Your task to perform on an android device: What's the weather going to be this weekend? Image 0: 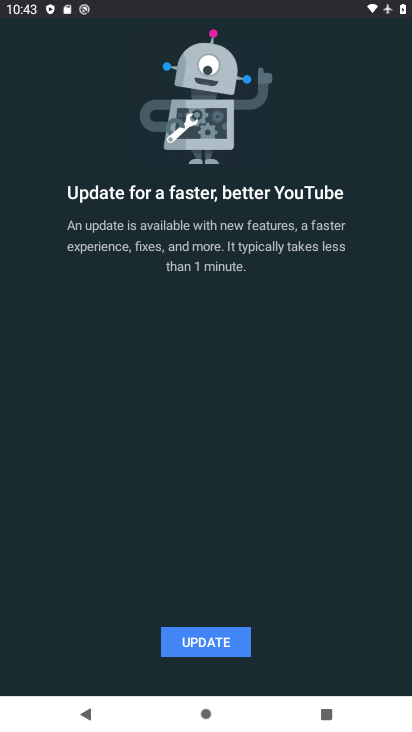
Step 0: press home button
Your task to perform on an android device: What's the weather going to be this weekend? Image 1: 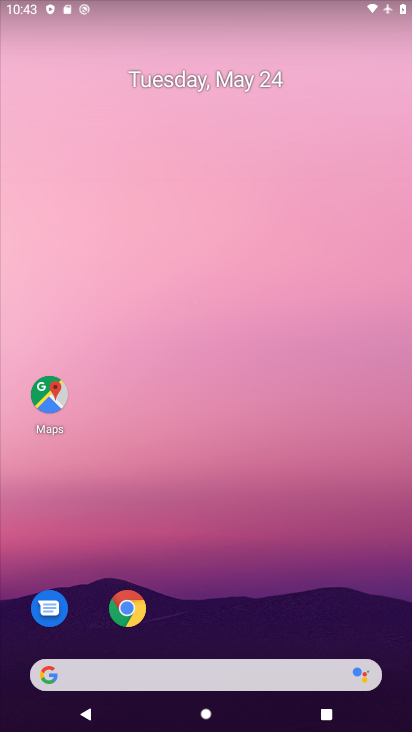
Step 1: drag from (5, 174) to (338, 217)
Your task to perform on an android device: What's the weather going to be this weekend? Image 2: 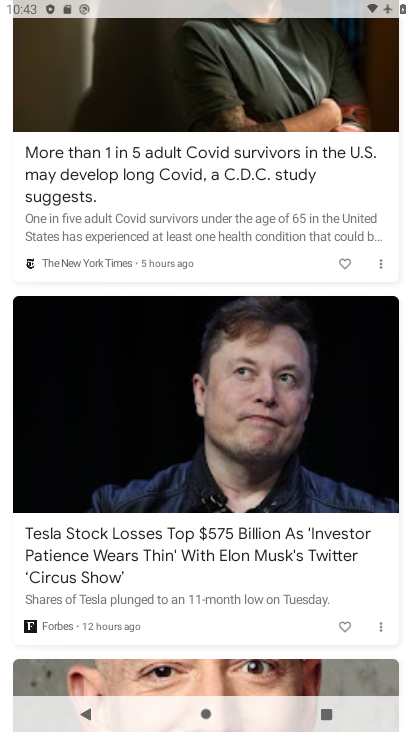
Step 2: drag from (308, 112) to (284, 559)
Your task to perform on an android device: What's the weather going to be this weekend? Image 3: 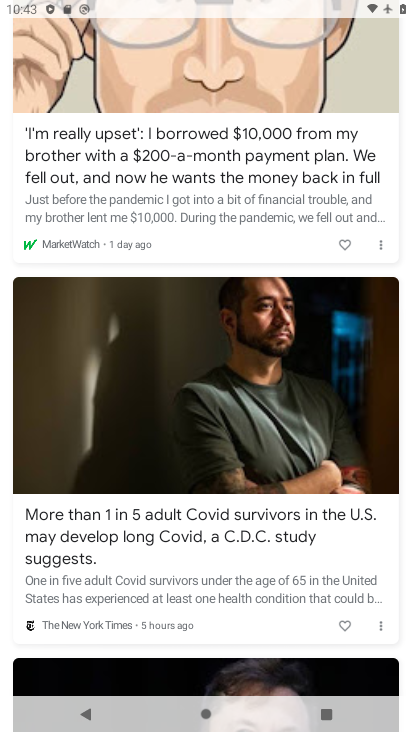
Step 3: drag from (277, 190) to (278, 628)
Your task to perform on an android device: What's the weather going to be this weekend? Image 4: 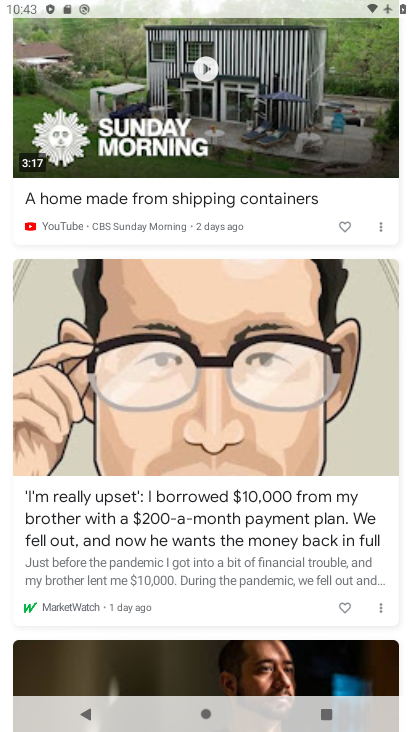
Step 4: drag from (294, 183) to (286, 613)
Your task to perform on an android device: What's the weather going to be this weekend? Image 5: 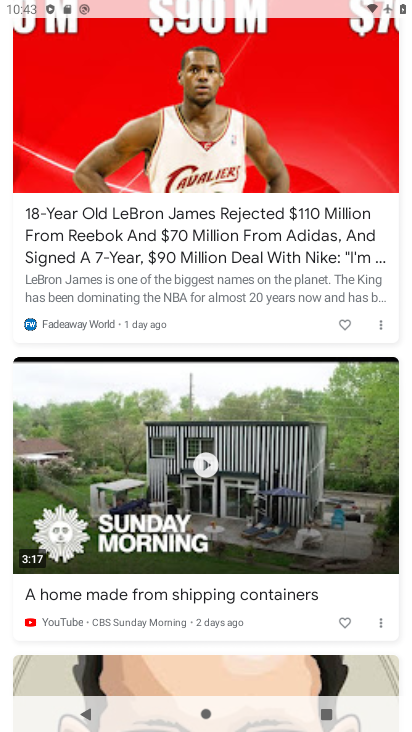
Step 5: drag from (275, 134) to (281, 619)
Your task to perform on an android device: What's the weather going to be this weekend? Image 6: 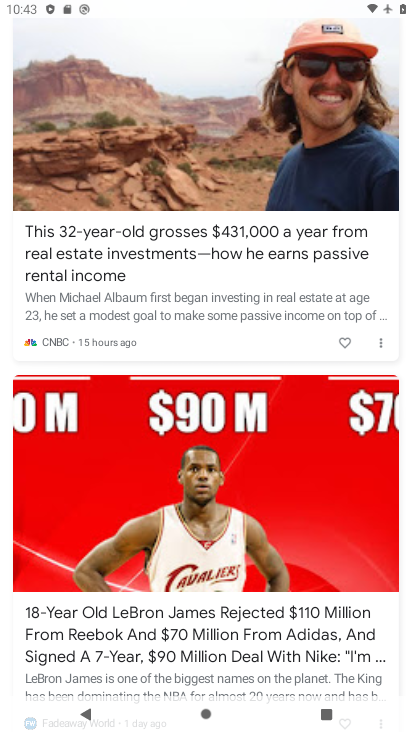
Step 6: drag from (290, 201) to (292, 604)
Your task to perform on an android device: What's the weather going to be this weekend? Image 7: 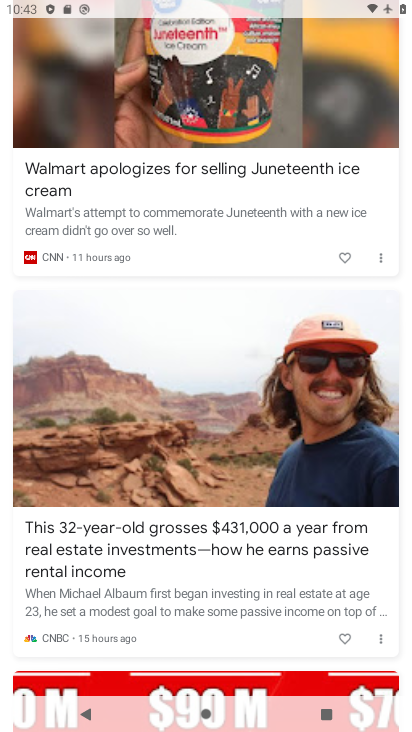
Step 7: drag from (303, 120) to (315, 586)
Your task to perform on an android device: What's the weather going to be this weekend? Image 8: 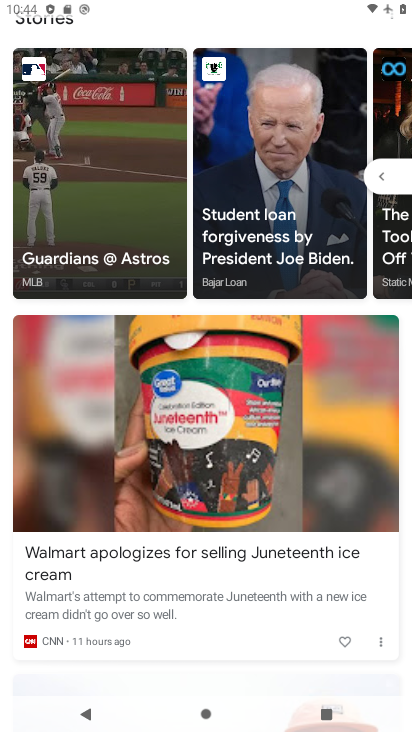
Step 8: drag from (286, 102) to (295, 576)
Your task to perform on an android device: What's the weather going to be this weekend? Image 9: 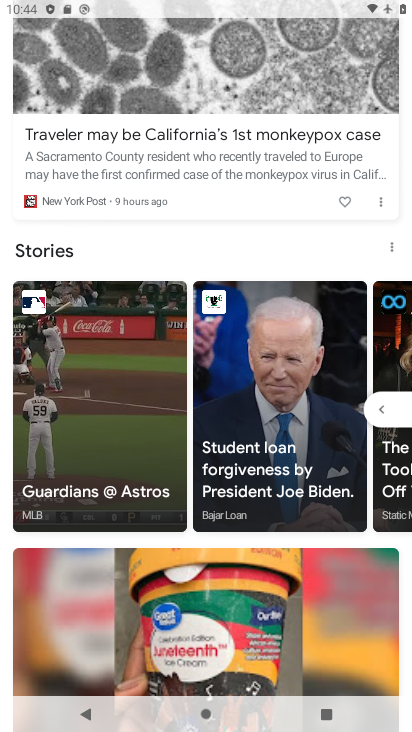
Step 9: drag from (276, 53) to (270, 468)
Your task to perform on an android device: What's the weather going to be this weekend? Image 10: 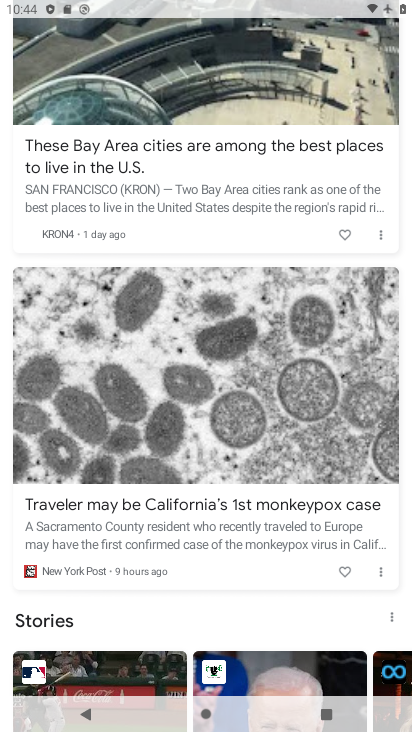
Step 10: drag from (263, 28) to (233, 572)
Your task to perform on an android device: What's the weather going to be this weekend? Image 11: 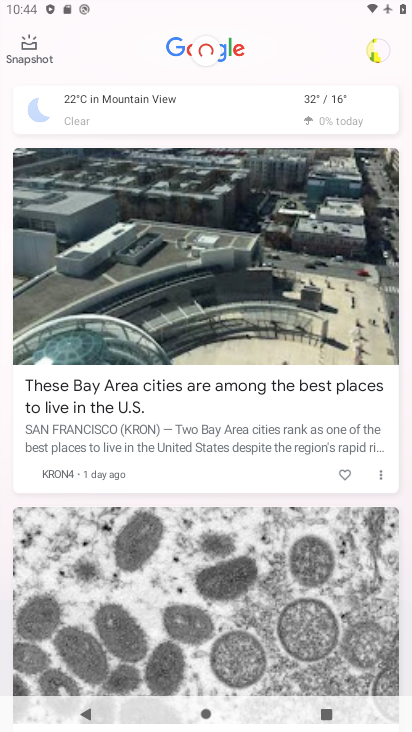
Step 11: click (325, 92)
Your task to perform on an android device: What's the weather going to be this weekend? Image 12: 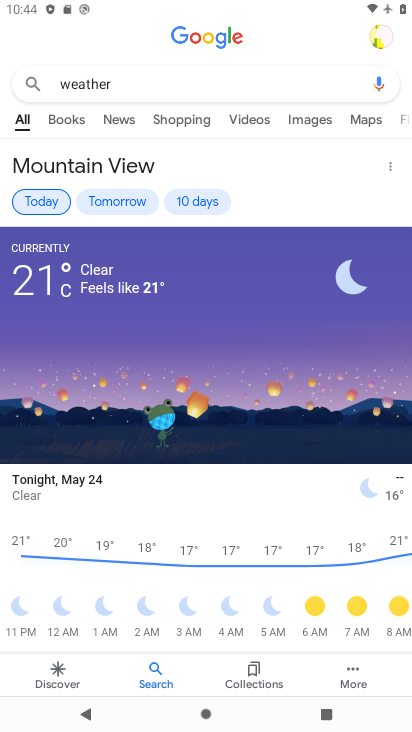
Step 12: click (200, 200)
Your task to perform on an android device: What's the weather going to be this weekend? Image 13: 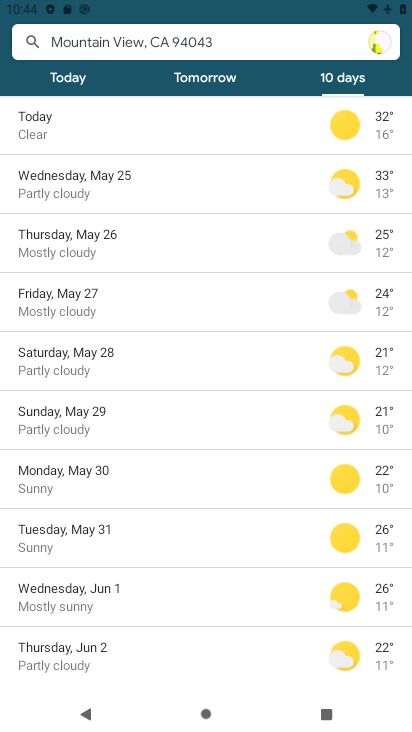
Step 13: task complete